Your task to perform on an android device: open app "Messages" Image 0: 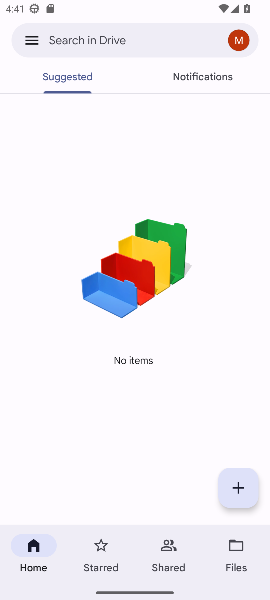
Step 0: press home button
Your task to perform on an android device: open app "Messages" Image 1: 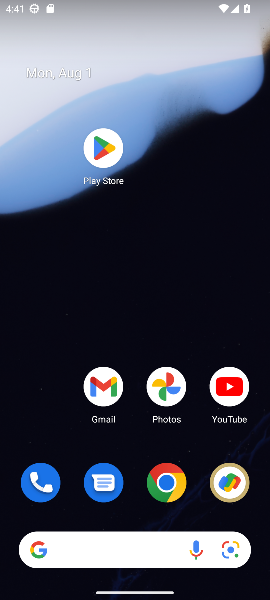
Step 1: click (105, 148)
Your task to perform on an android device: open app "Messages" Image 2: 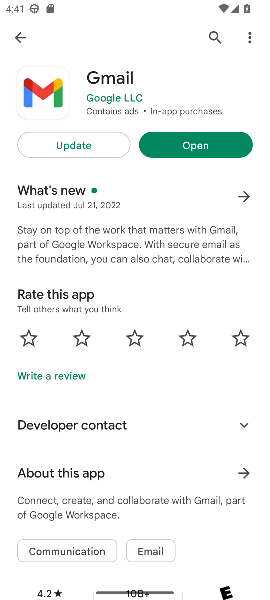
Step 2: click (212, 36)
Your task to perform on an android device: open app "Messages" Image 3: 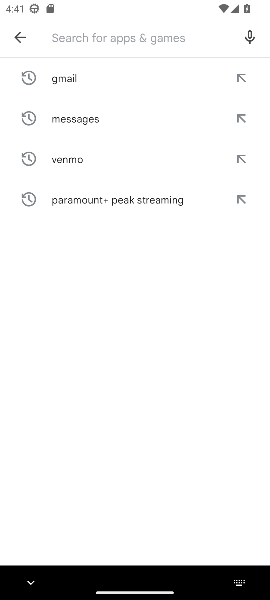
Step 3: click (95, 120)
Your task to perform on an android device: open app "Messages" Image 4: 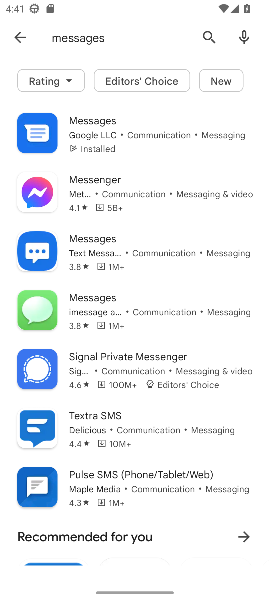
Step 4: click (112, 133)
Your task to perform on an android device: open app "Messages" Image 5: 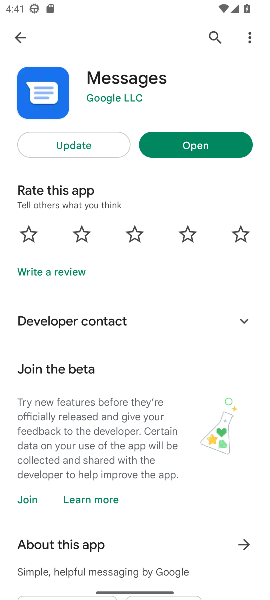
Step 5: click (211, 147)
Your task to perform on an android device: open app "Messages" Image 6: 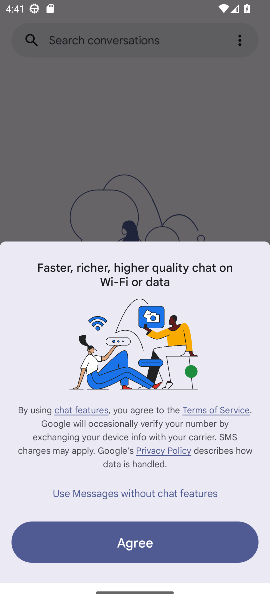
Step 6: task complete